Your task to perform on an android device: Show me popular games on the Play Store Image 0: 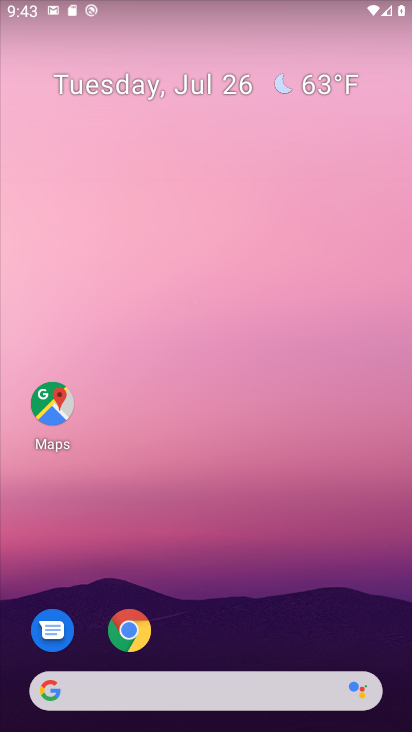
Step 0: drag from (238, 641) to (258, 53)
Your task to perform on an android device: Show me popular games on the Play Store Image 1: 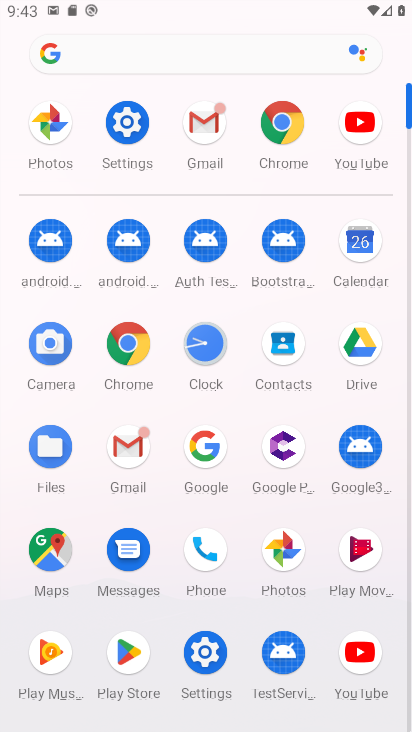
Step 1: click (123, 650)
Your task to perform on an android device: Show me popular games on the Play Store Image 2: 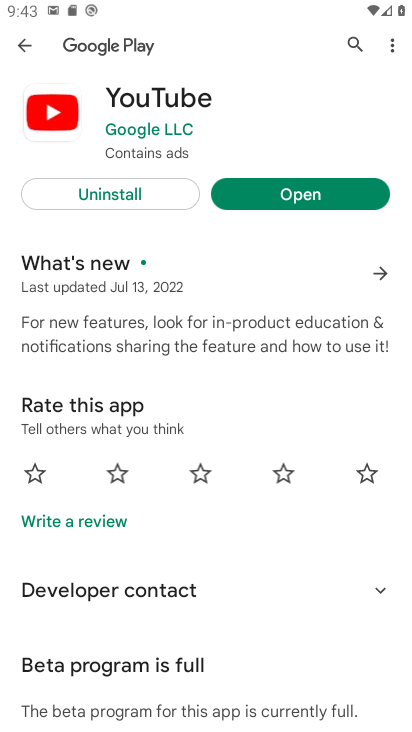
Step 2: click (25, 38)
Your task to perform on an android device: Show me popular games on the Play Store Image 3: 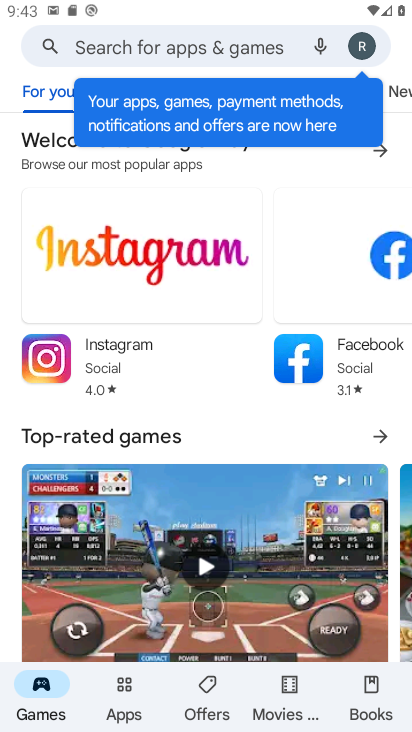
Step 3: drag from (223, 458) to (219, 180)
Your task to perform on an android device: Show me popular games on the Play Store Image 4: 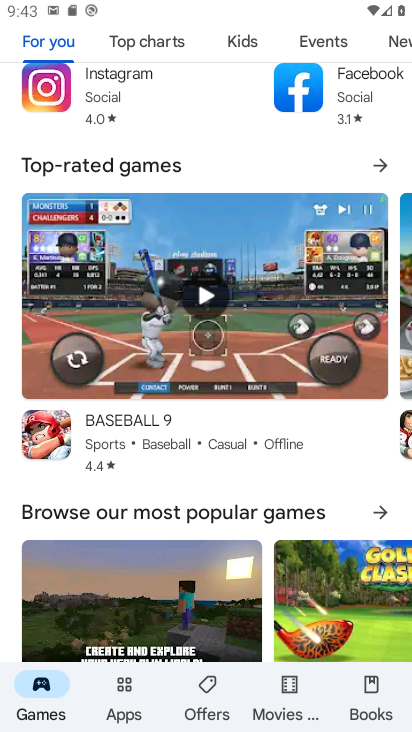
Step 4: drag from (216, 608) to (225, 354)
Your task to perform on an android device: Show me popular games on the Play Store Image 5: 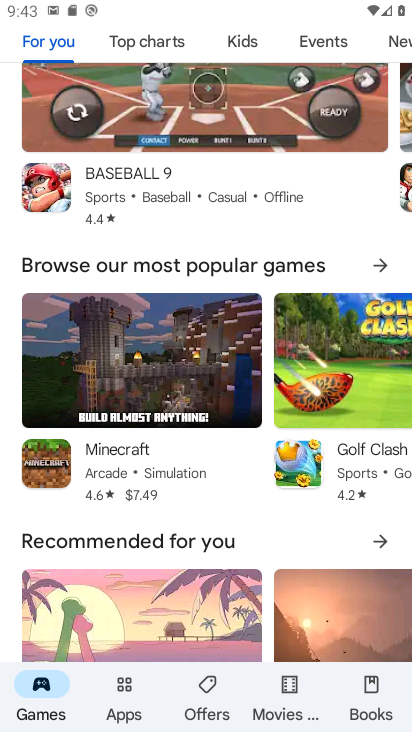
Step 5: click (378, 267)
Your task to perform on an android device: Show me popular games on the Play Store Image 6: 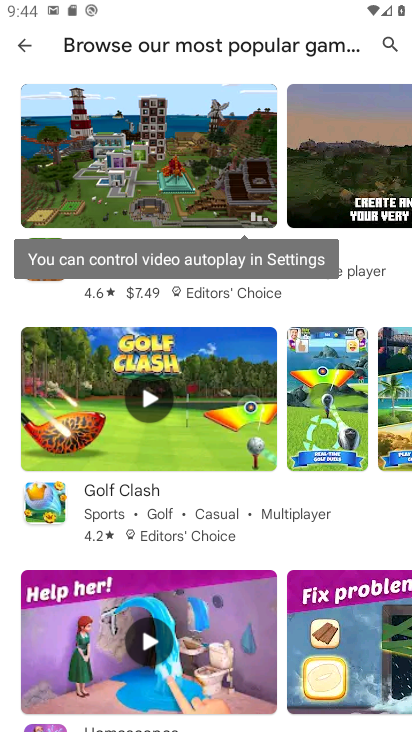
Step 6: task complete